Your task to perform on an android device: Open calendar and show me the first week of next month Image 0: 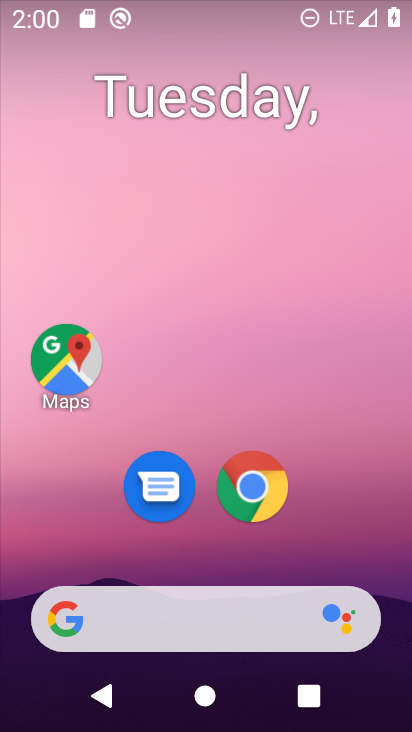
Step 0: drag from (230, 581) to (235, 9)
Your task to perform on an android device: Open calendar and show me the first week of next month Image 1: 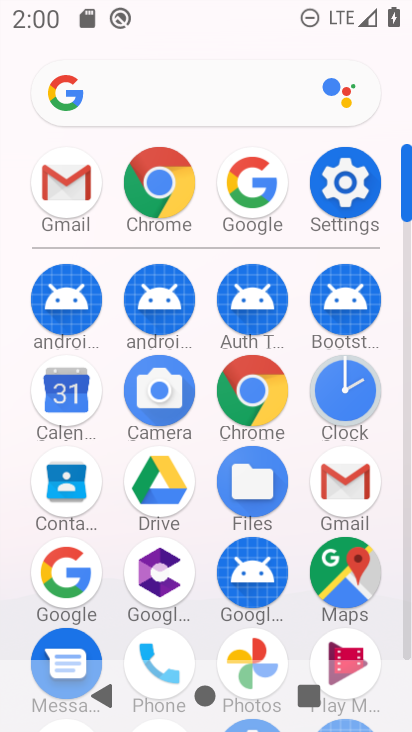
Step 1: click (64, 400)
Your task to perform on an android device: Open calendar and show me the first week of next month Image 2: 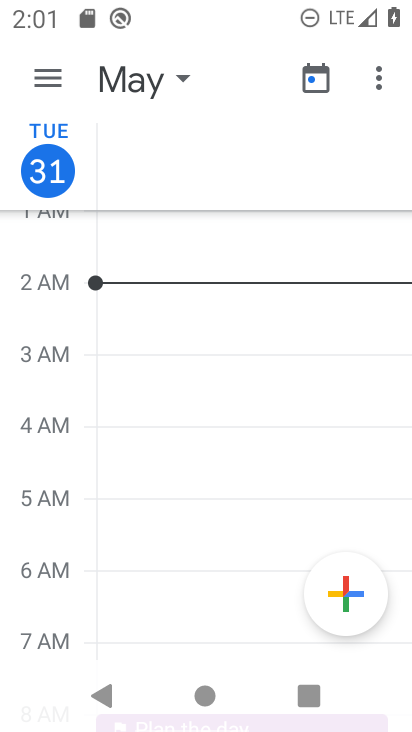
Step 2: click (171, 82)
Your task to perform on an android device: Open calendar and show me the first week of next month Image 3: 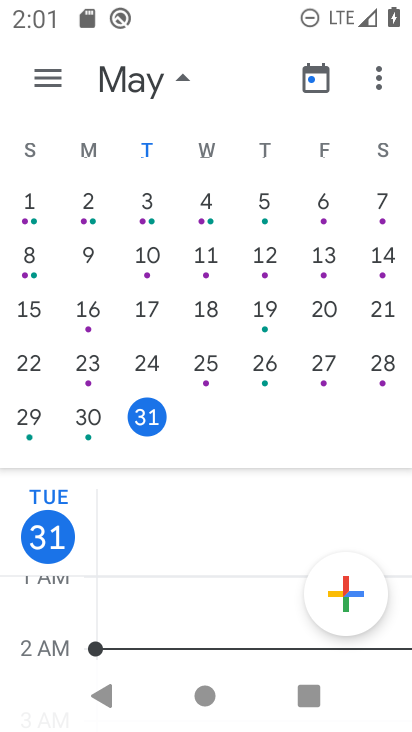
Step 3: drag from (314, 349) to (13, 328)
Your task to perform on an android device: Open calendar and show me the first week of next month Image 4: 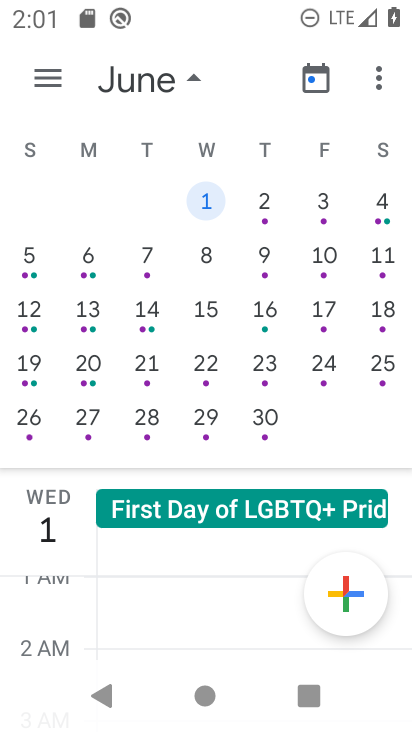
Step 4: click (192, 71)
Your task to perform on an android device: Open calendar and show me the first week of next month Image 5: 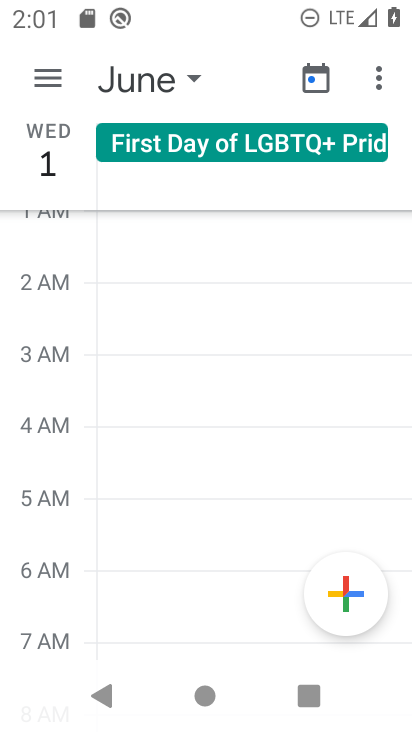
Step 5: task complete